Your task to perform on an android device: Open maps Image 0: 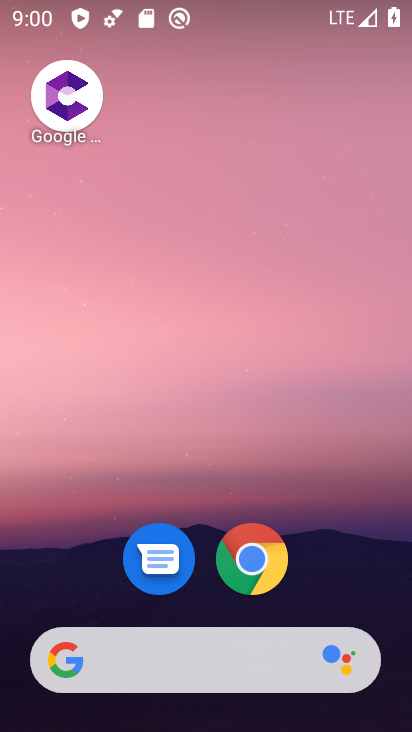
Step 0: drag from (389, 595) to (300, 56)
Your task to perform on an android device: Open maps Image 1: 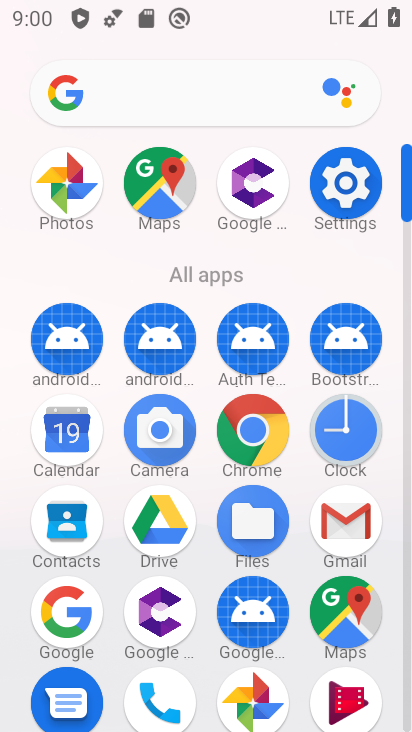
Step 1: click (164, 175)
Your task to perform on an android device: Open maps Image 2: 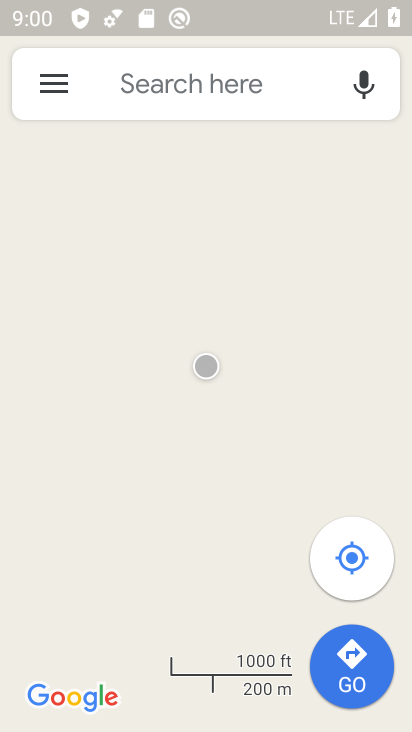
Step 2: task complete